Your task to perform on an android device: Go to Google Image 0: 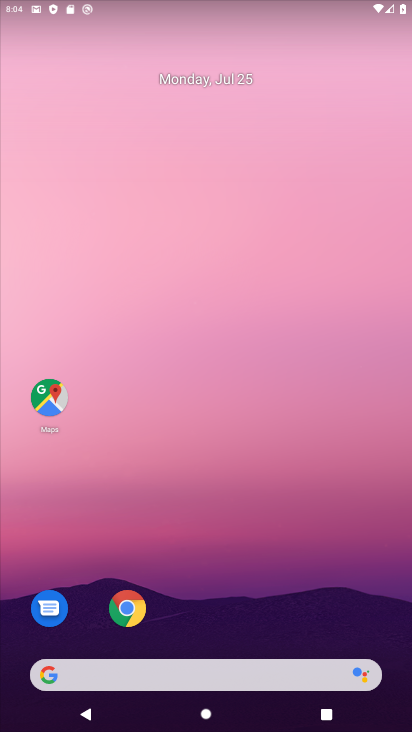
Step 0: drag from (149, 721) to (137, 0)
Your task to perform on an android device: Go to Google Image 1: 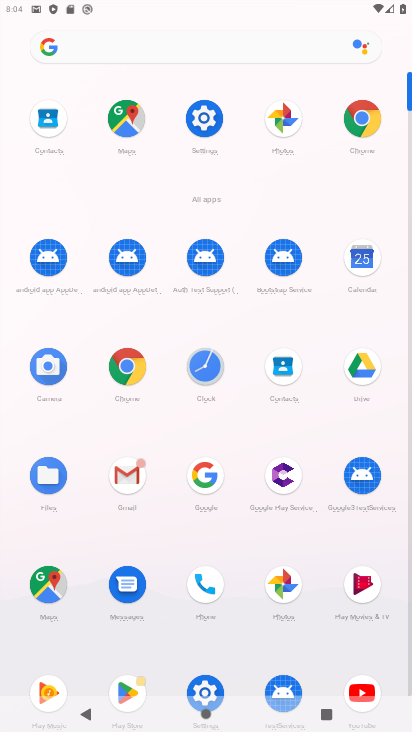
Step 1: click (204, 485)
Your task to perform on an android device: Go to Google Image 2: 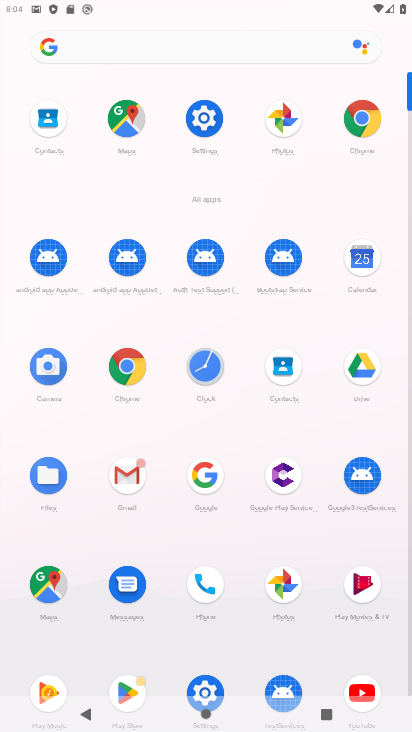
Step 2: click (204, 485)
Your task to perform on an android device: Go to Google Image 3: 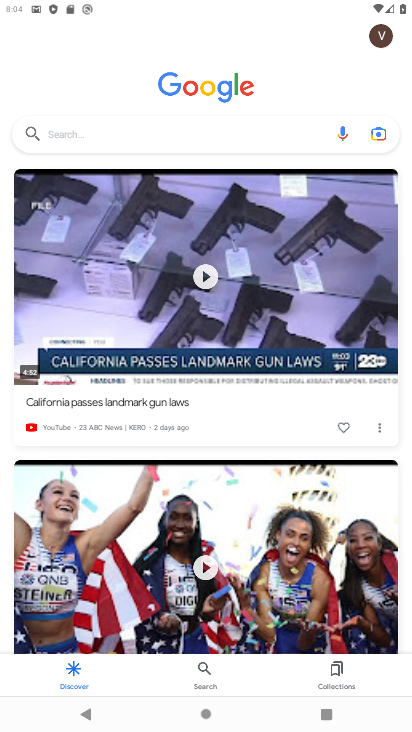
Step 3: task complete